Your task to perform on an android device: change timer sound Image 0: 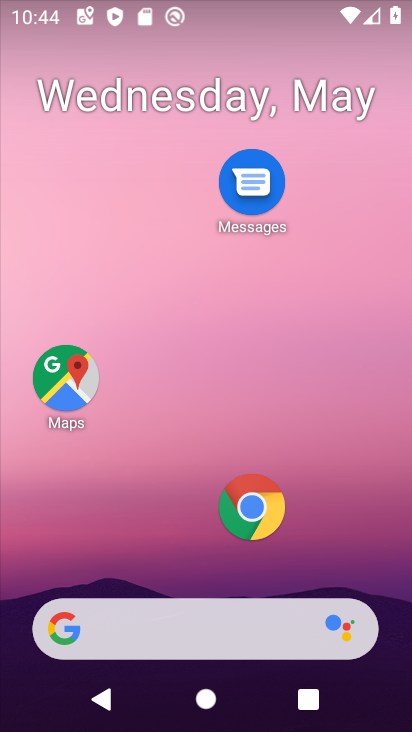
Step 0: click (190, 42)
Your task to perform on an android device: change timer sound Image 1: 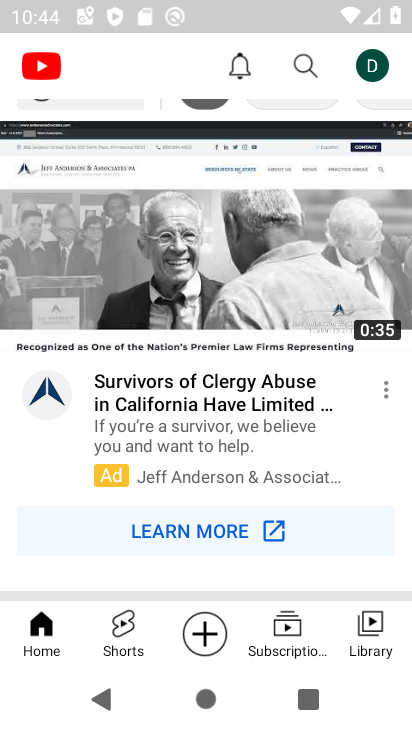
Step 1: press home button
Your task to perform on an android device: change timer sound Image 2: 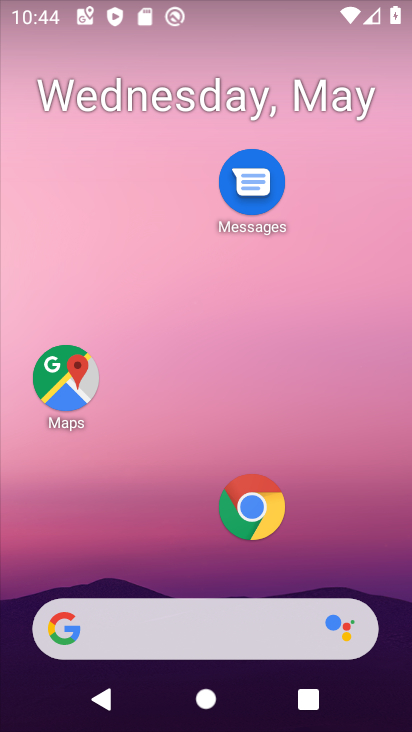
Step 2: drag from (195, 575) to (217, 64)
Your task to perform on an android device: change timer sound Image 3: 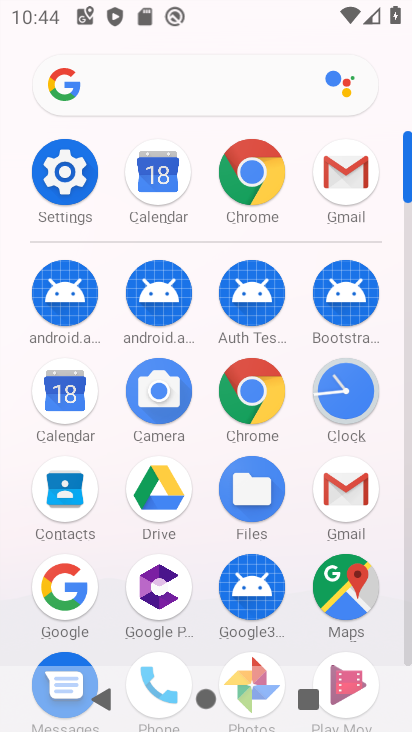
Step 3: click (345, 385)
Your task to perform on an android device: change timer sound Image 4: 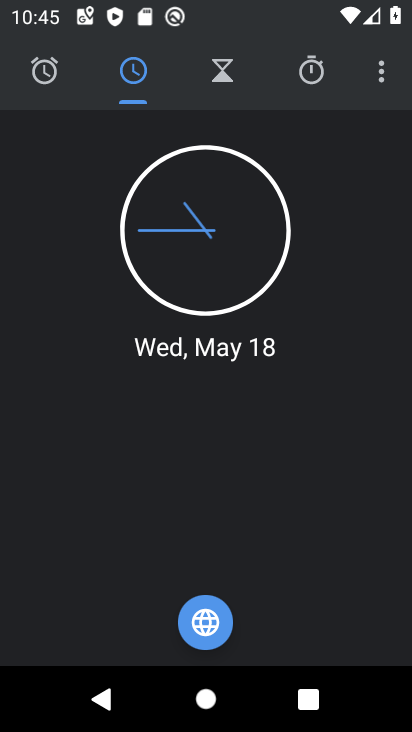
Step 4: click (385, 59)
Your task to perform on an android device: change timer sound Image 5: 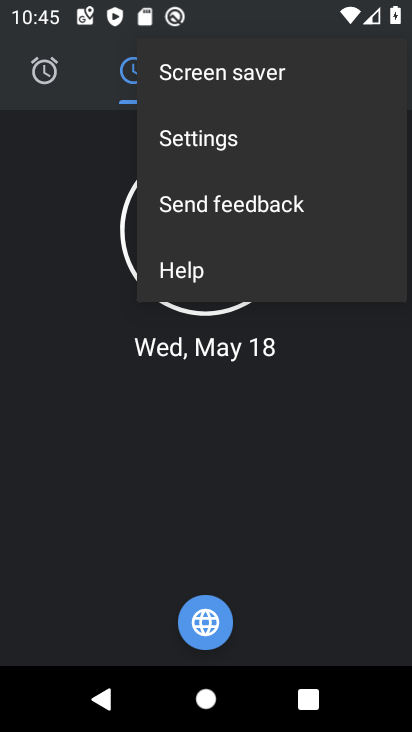
Step 5: click (256, 140)
Your task to perform on an android device: change timer sound Image 6: 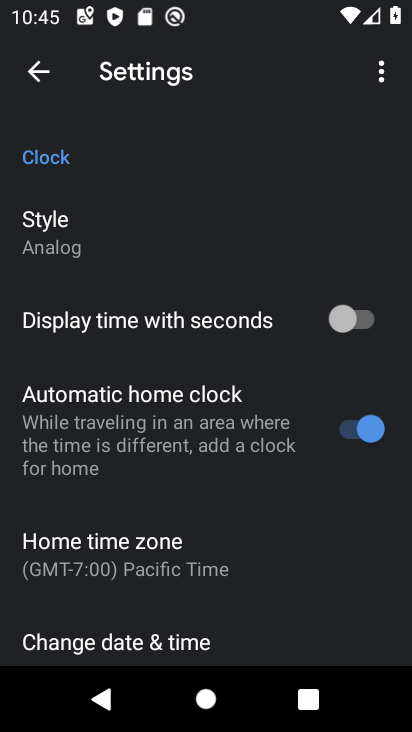
Step 6: drag from (242, 619) to (272, 112)
Your task to perform on an android device: change timer sound Image 7: 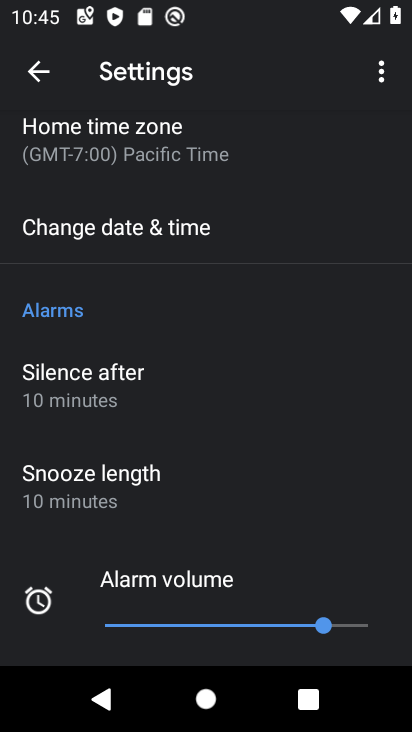
Step 7: drag from (261, 569) to (261, 226)
Your task to perform on an android device: change timer sound Image 8: 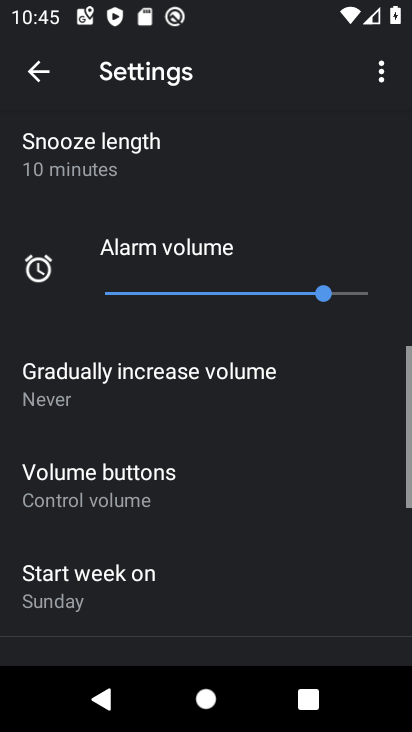
Step 8: click (256, 173)
Your task to perform on an android device: change timer sound Image 9: 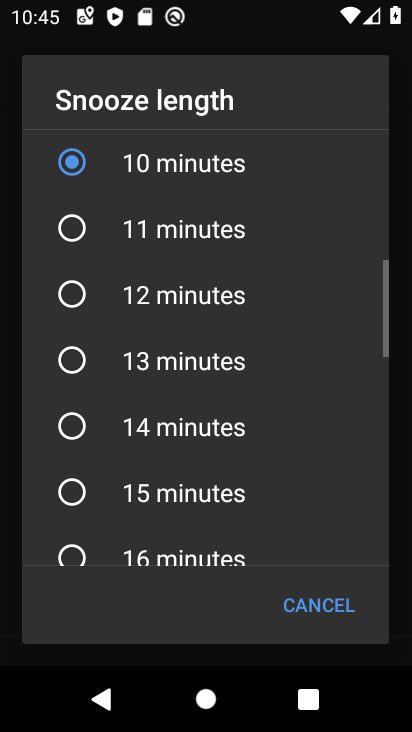
Step 9: click (321, 604)
Your task to perform on an android device: change timer sound Image 10: 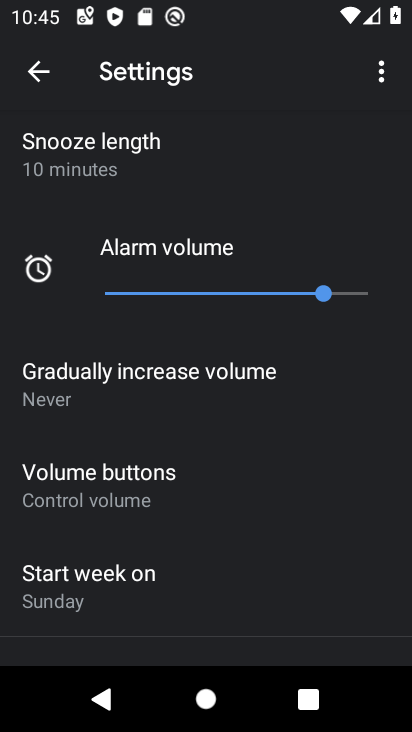
Step 10: drag from (208, 595) to (227, 124)
Your task to perform on an android device: change timer sound Image 11: 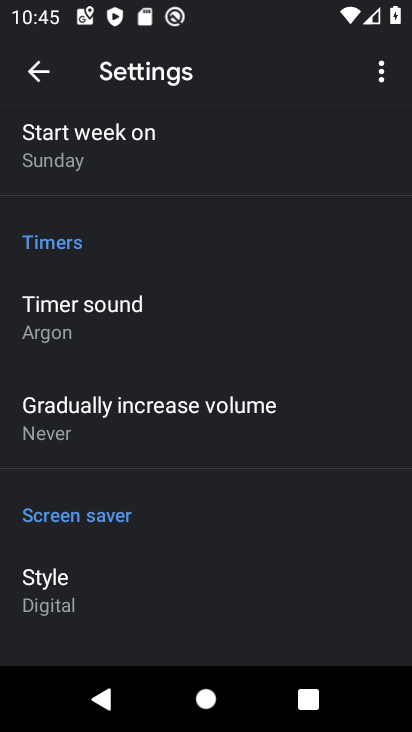
Step 11: click (104, 321)
Your task to perform on an android device: change timer sound Image 12: 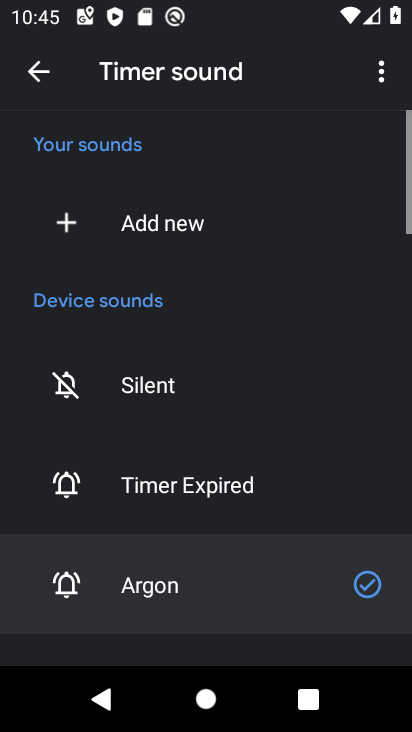
Step 12: drag from (233, 541) to (257, 159)
Your task to perform on an android device: change timer sound Image 13: 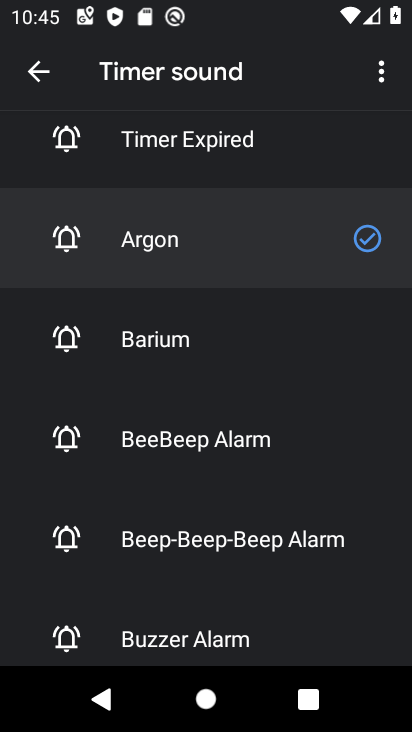
Step 13: click (262, 636)
Your task to perform on an android device: change timer sound Image 14: 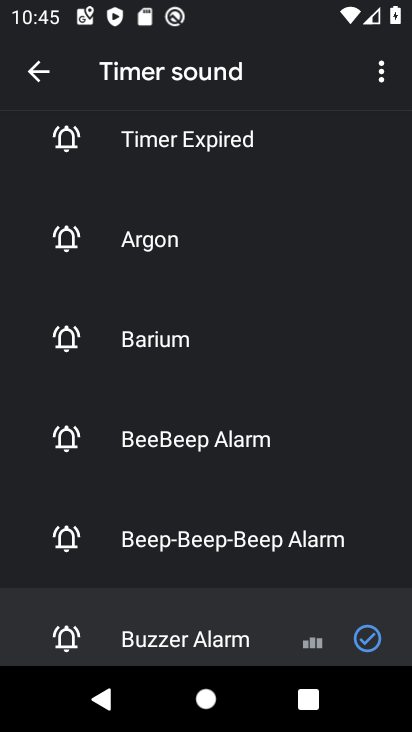
Step 14: task complete